Your task to perform on an android device: What's on my calendar tomorrow? Image 0: 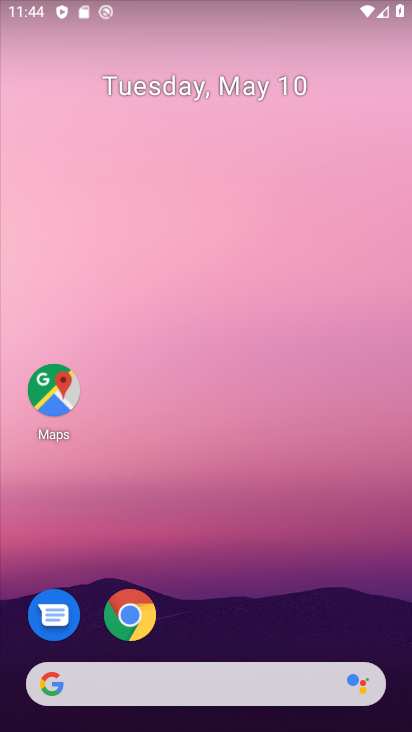
Step 0: drag from (257, 385) to (240, 41)
Your task to perform on an android device: What's on my calendar tomorrow? Image 1: 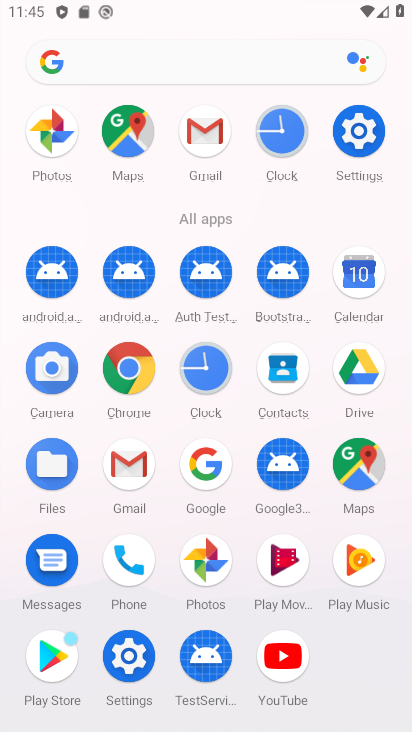
Step 1: click (356, 286)
Your task to perform on an android device: What's on my calendar tomorrow? Image 2: 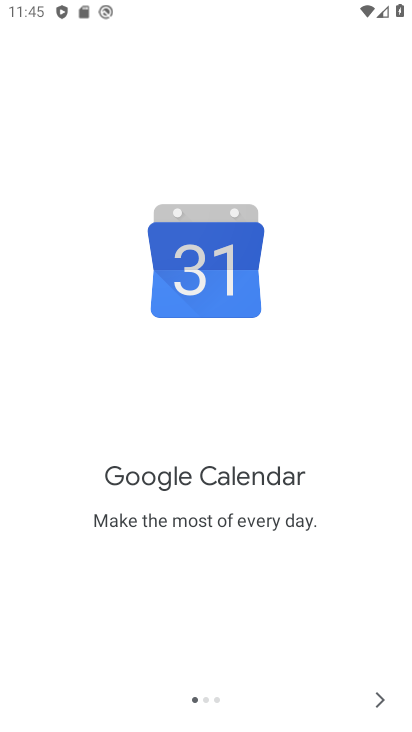
Step 2: click (386, 712)
Your task to perform on an android device: What's on my calendar tomorrow? Image 3: 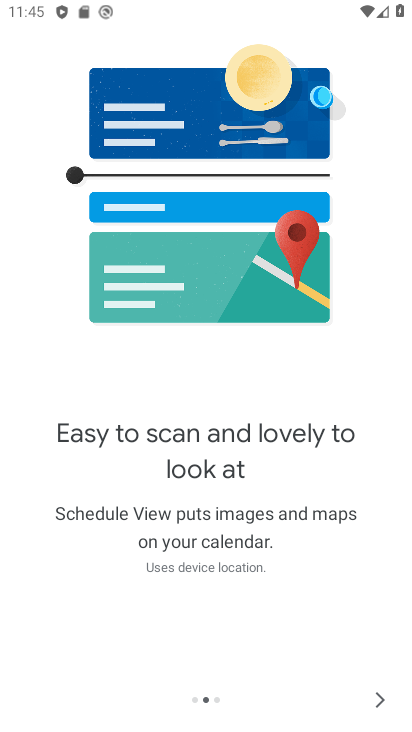
Step 3: click (385, 711)
Your task to perform on an android device: What's on my calendar tomorrow? Image 4: 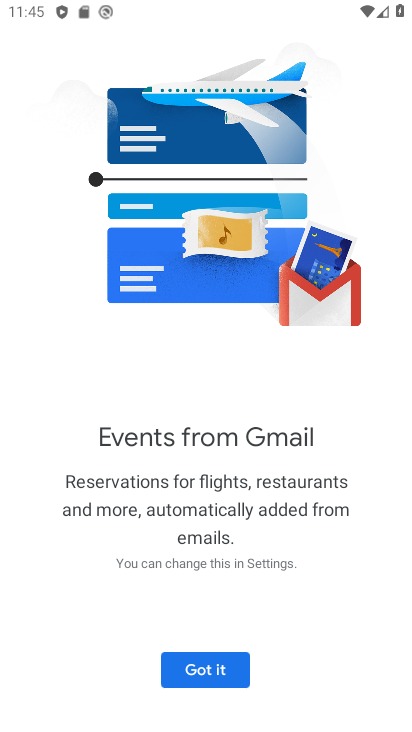
Step 4: click (237, 673)
Your task to perform on an android device: What's on my calendar tomorrow? Image 5: 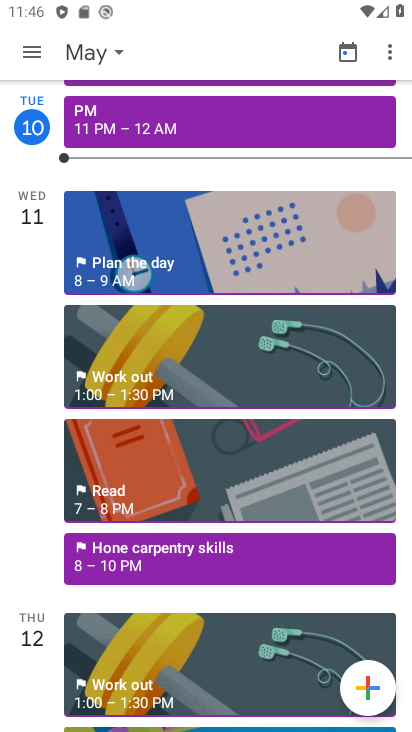
Step 5: task complete